Your task to perform on an android device: turn on airplane mode Image 0: 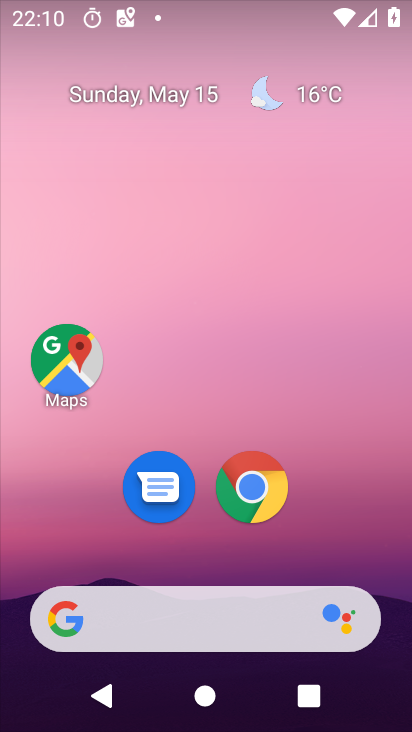
Step 0: drag from (391, 645) to (334, 248)
Your task to perform on an android device: turn on airplane mode Image 1: 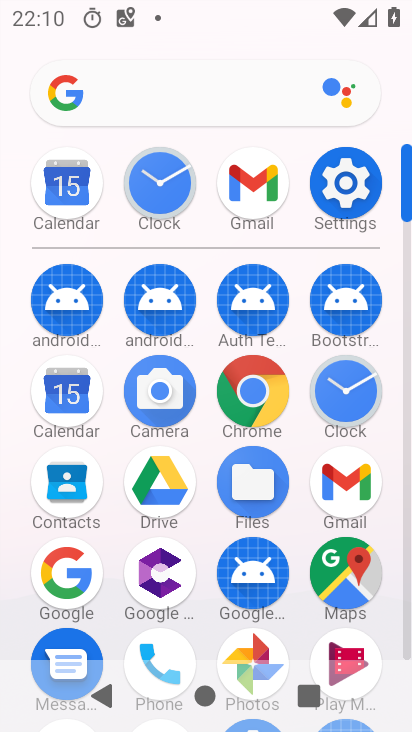
Step 1: click (353, 183)
Your task to perform on an android device: turn on airplane mode Image 2: 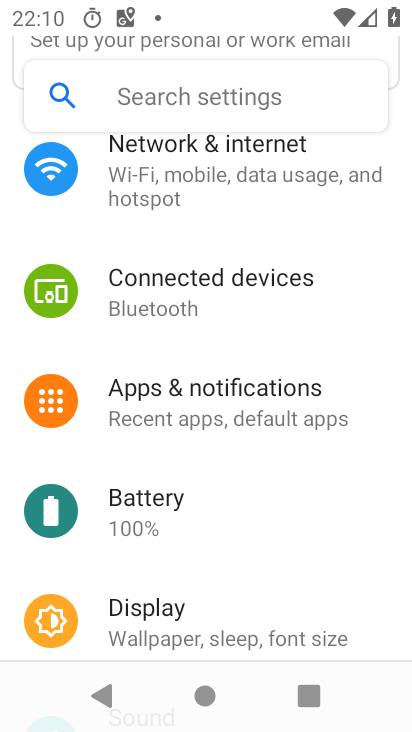
Step 2: drag from (350, 184) to (353, 500)
Your task to perform on an android device: turn on airplane mode Image 3: 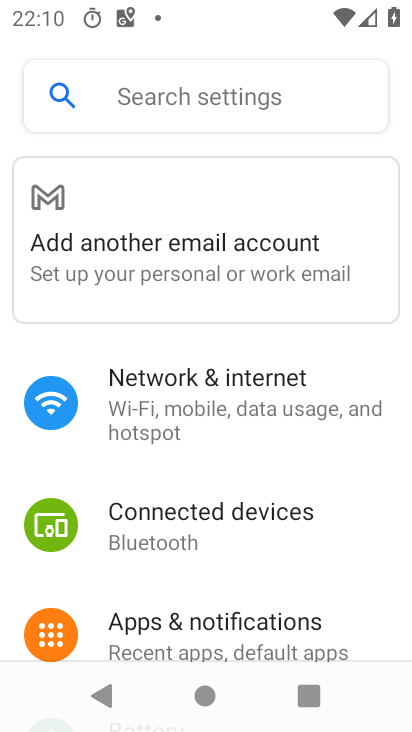
Step 3: click (124, 409)
Your task to perform on an android device: turn on airplane mode Image 4: 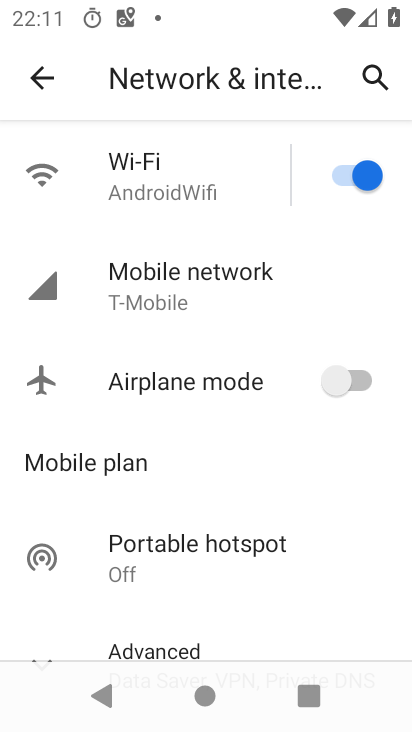
Step 4: click (356, 382)
Your task to perform on an android device: turn on airplane mode Image 5: 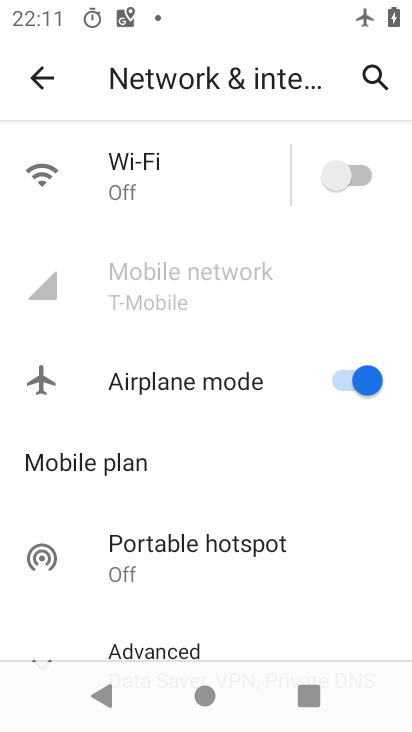
Step 5: task complete